Your task to perform on an android device: Set the phone to "Do not disturb". Image 0: 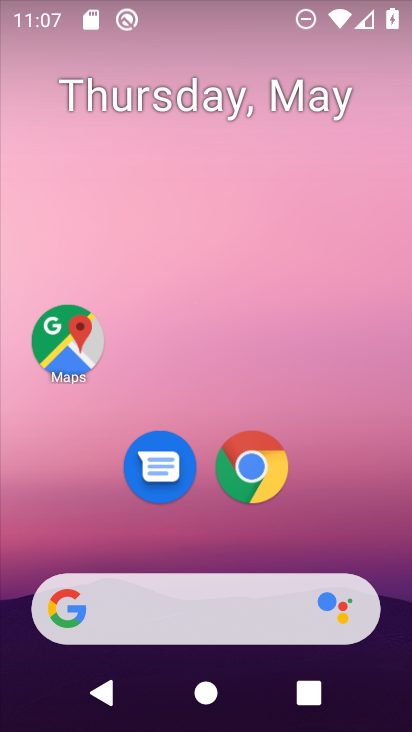
Step 0: drag from (227, 540) to (197, 170)
Your task to perform on an android device: Set the phone to "Do not disturb". Image 1: 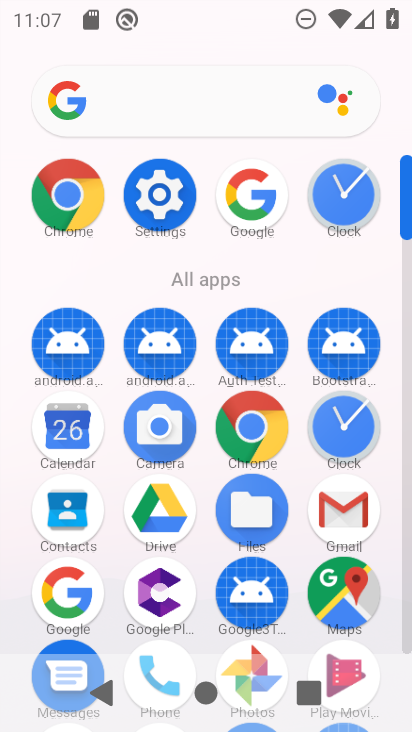
Step 1: drag from (223, 298) to (208, 74)
Your task to perform on an android device: Set the phone to "Do not disturb". Image 2: 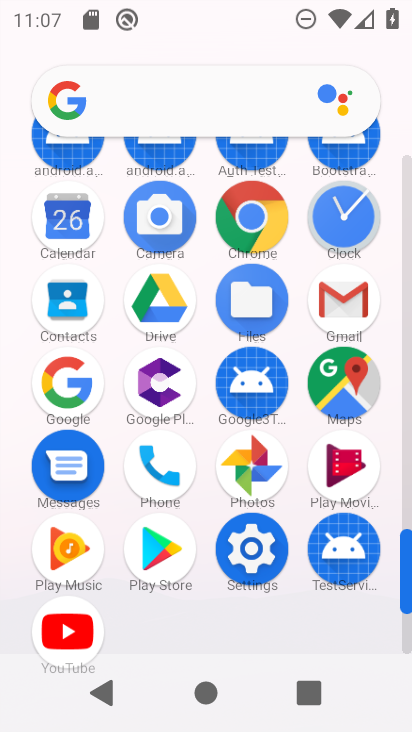
Step 2: click (265, 556)
Your task to perform on an android device: Set the phone to "Do not disturb". Image 3: 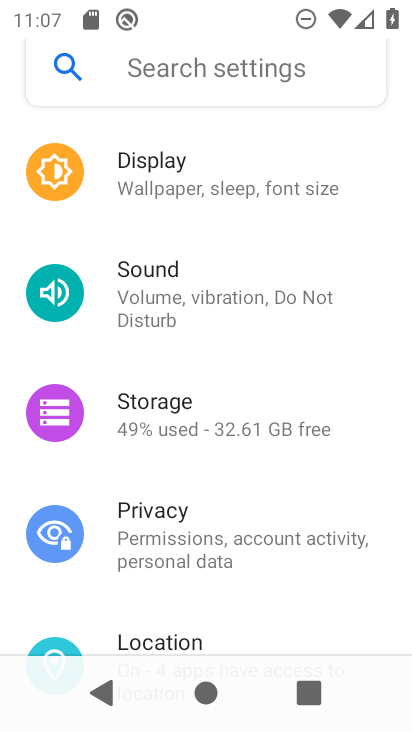
Step 3: click (184, 314)
Your task to perform on an android device: Set the phone to "Do not disturb". Image 4: 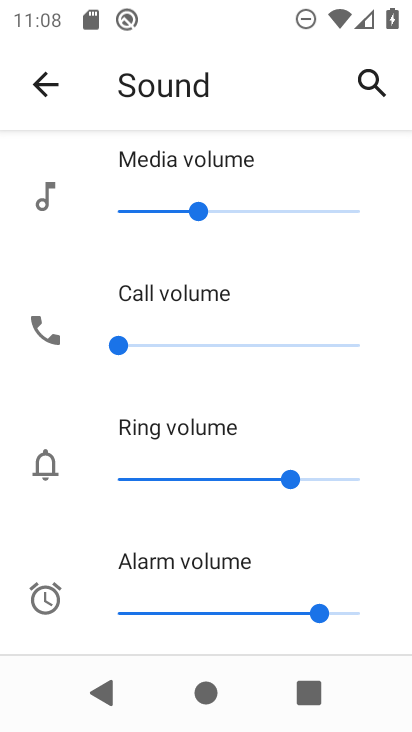
Step 4: task complete